Your task to perform on an android device: Toggle the flashlight Image 0: 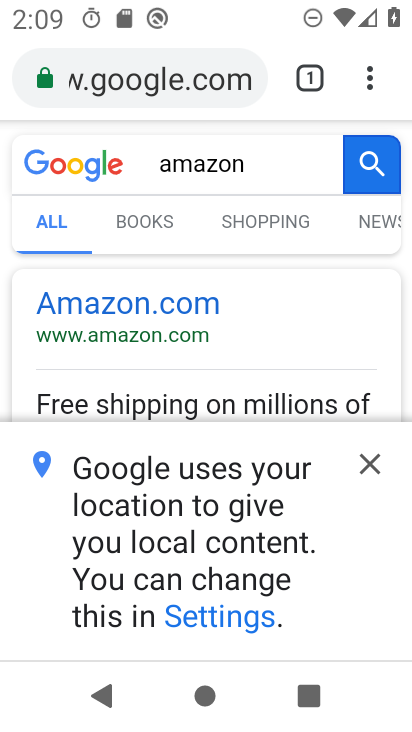
Step 0: press home button
Your task to perform on an android device: Toggle the flashlight Image 1: 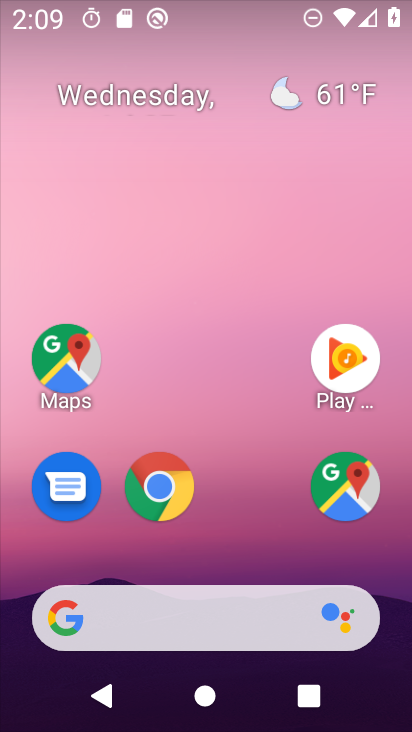
Step 1: drag from (233, 8) to (229, 432)
Your task to perform on an android device: Toggle the flashlight Image 2: 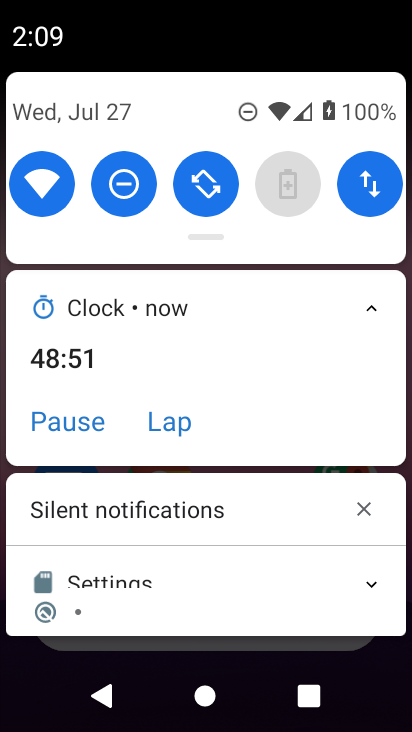
Step 2: drag from (248, 130) to (245, 358)
Your task to perform on an android device: Toggle the flashlight Image 3: 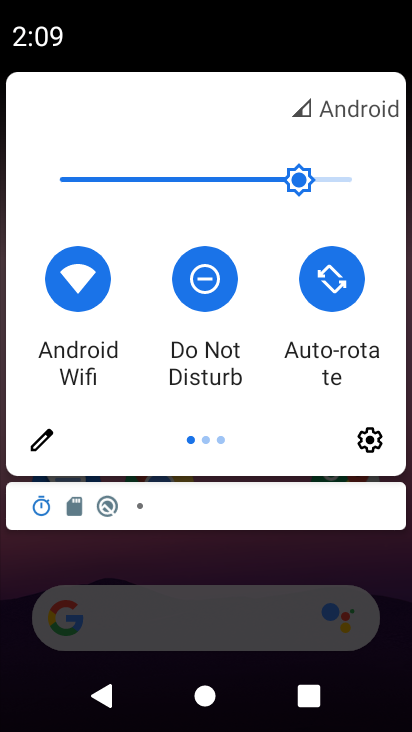
Step 3: click (65, 450)
Your task to perform on an android device: Toggle the flashlight Image 4: 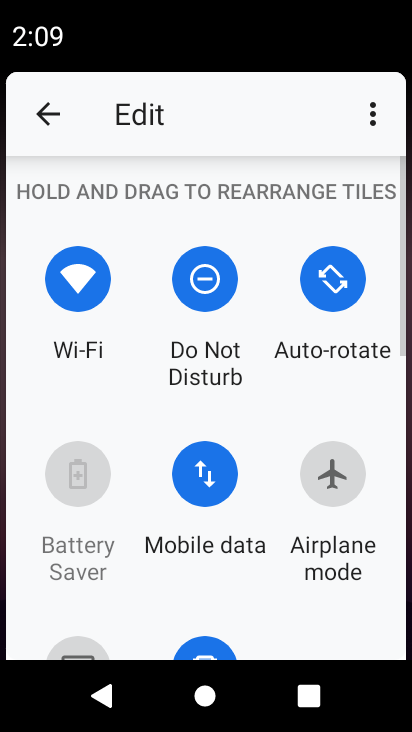
Step 4: task complete